Your task to perform on an android device: Is it going to rain this weekend? Image 0: 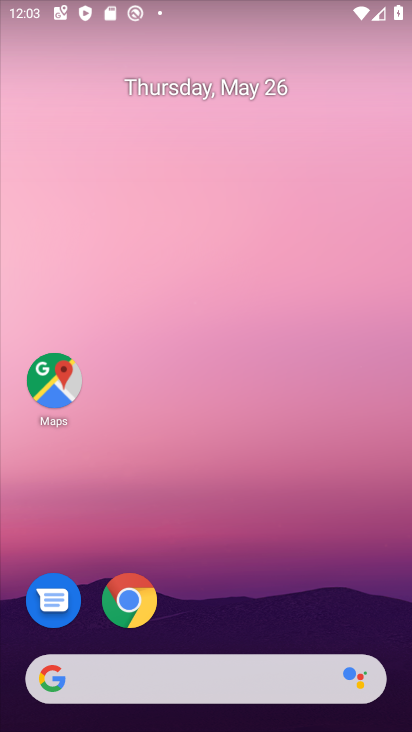
Step 0: drag from (281, 579) to (272, 120)
Your task to perform on an android device: Is it going to rain this weekend? Image 1: 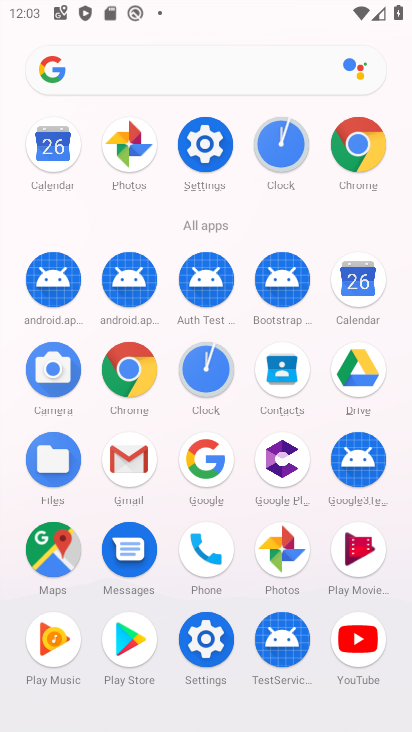
Step 1: press home button
Your task to perform on an android device: Is it going to rain this weekend? Image 2: 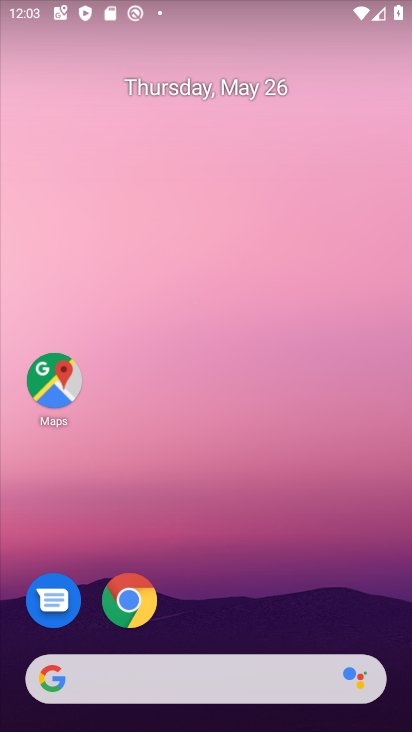
Step 2: click (133, 598)
Your task to perform on an android device: Is it going to rain this weekend? Image 3: 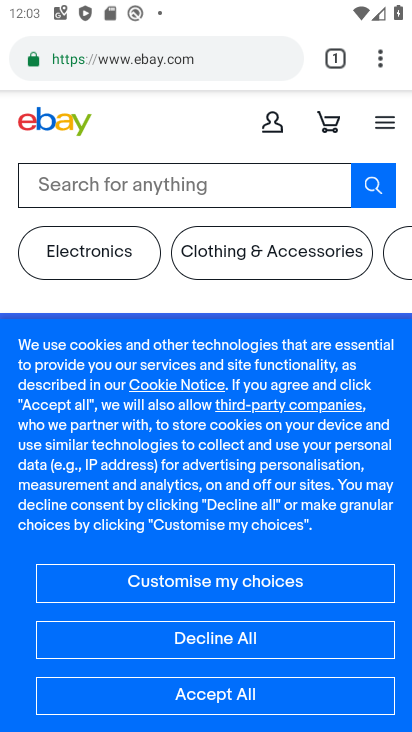
Step 3: click (219, 61)
Your task to perform on an android device: Is it going to rain this weekend? Image 4: 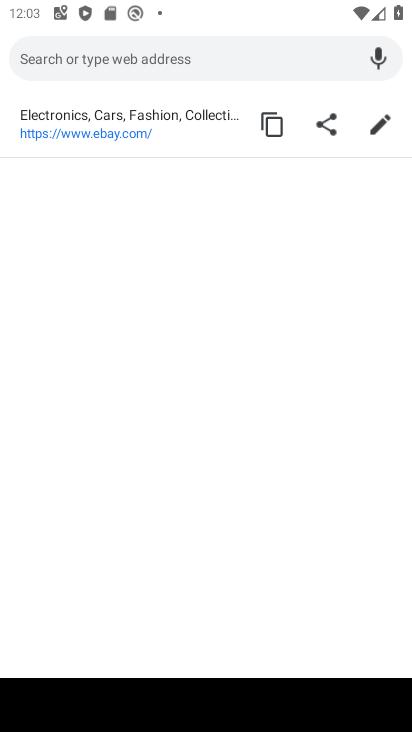
Step 4: type "weather"
Your task to perform on an android device: Is it going to rain this weekend? Image 5: 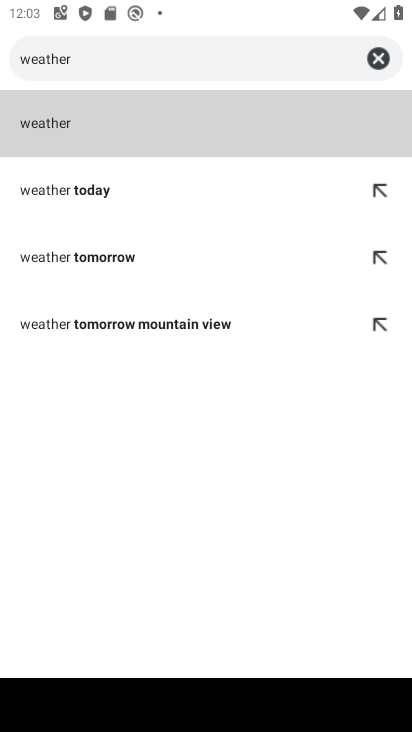
Step 5: click (45, 117)
Your task to perform on an android device: Is it going to rain this weekend? Image 6: 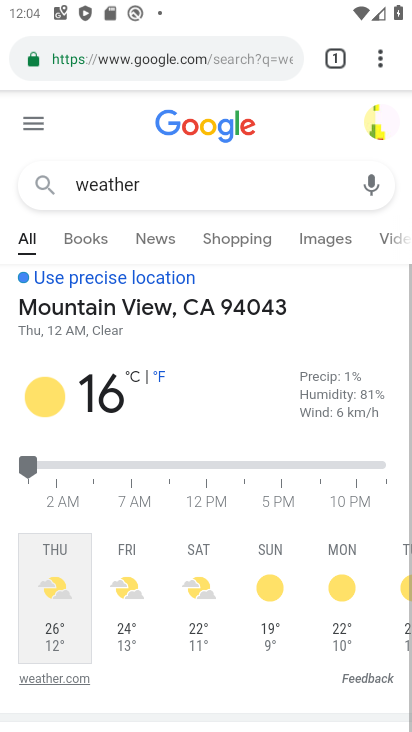
Step 6: task complete